Your task to perform on an android device: add a contact Image 0: 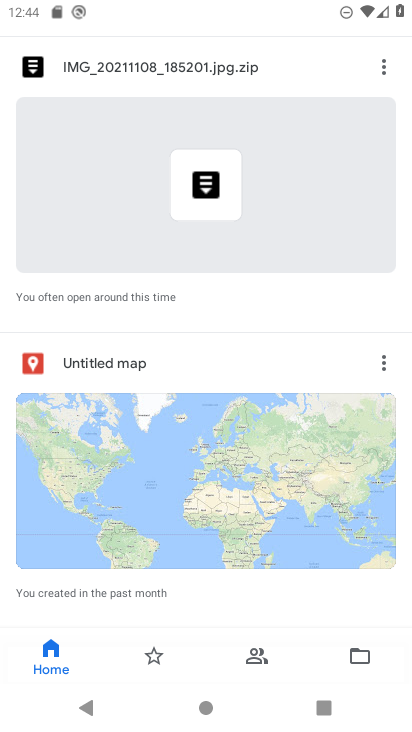
Step 0: press home button
Your task to perform on an android device: add a contact Image 1: 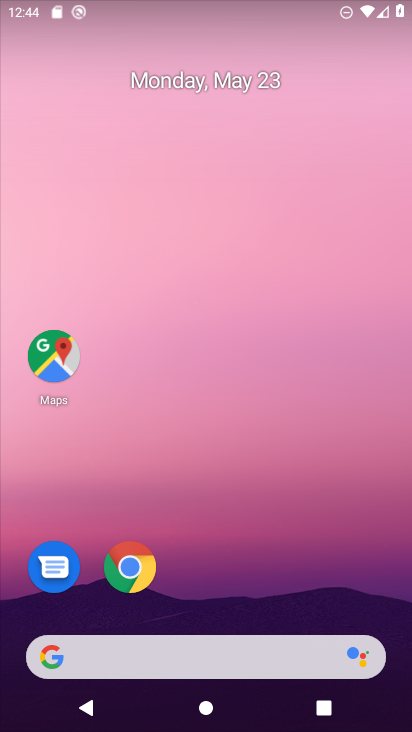
Step 1: drag from (184, 620) to (211, 166)
Your task to perform on an android device: add a contact Image 2: 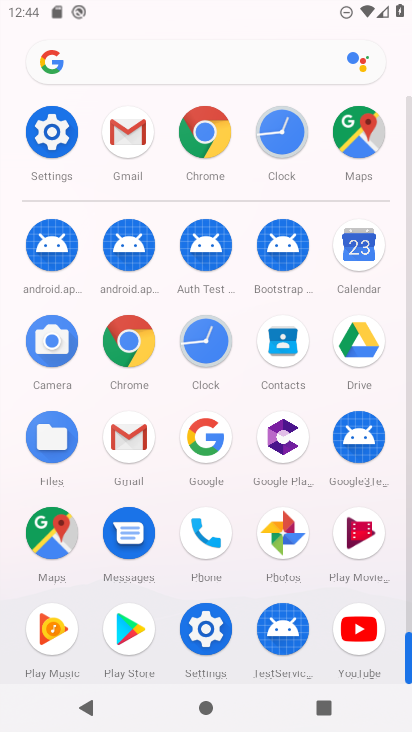
Step 2: click (273, 348)
Your task to perform on an android device: add a contact Image 3: 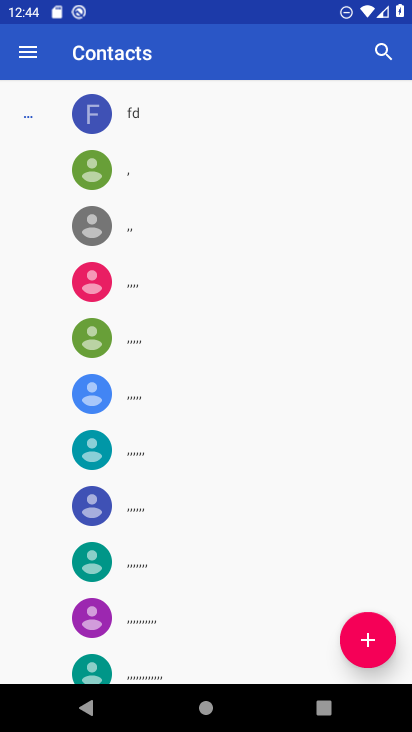
Step 3: click (375, 647)
Your task to perform on an android device: add a contact Image 4: 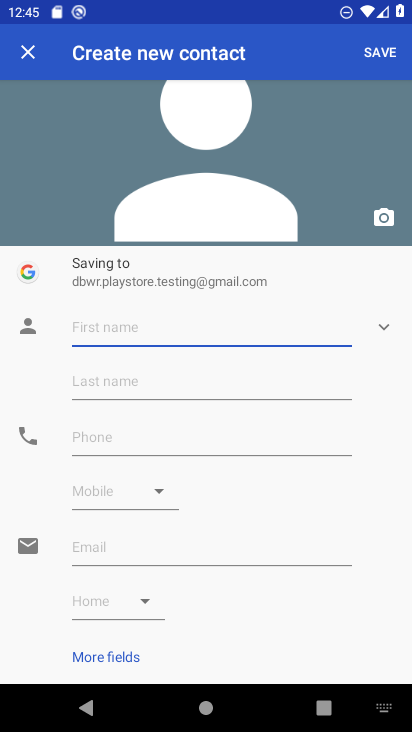
Step 4: type "mm"
Your task to perform on an android device: add a contact Image 5: 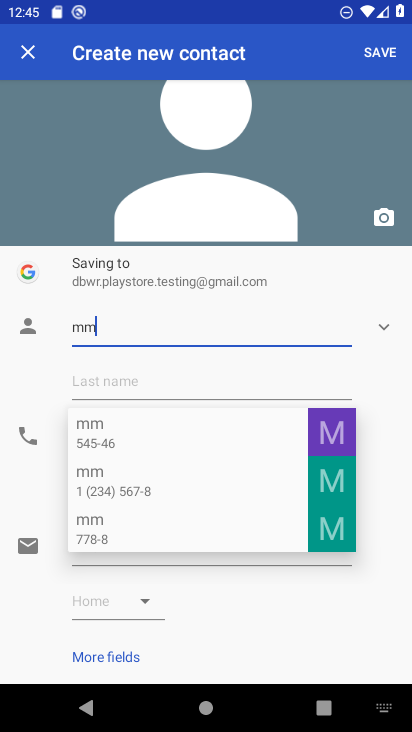
Step 5: click (162, 451)
Your task to perform on an android device: add a contact Image 6: 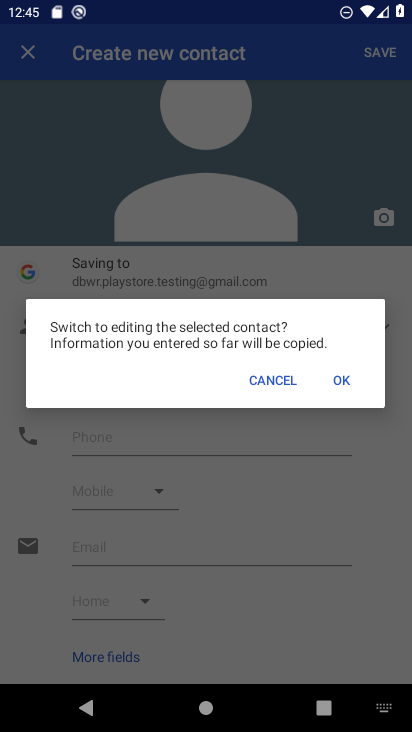
Step 6: click (293, 386)
Your task to perform on an android device: add a contact Image 7: 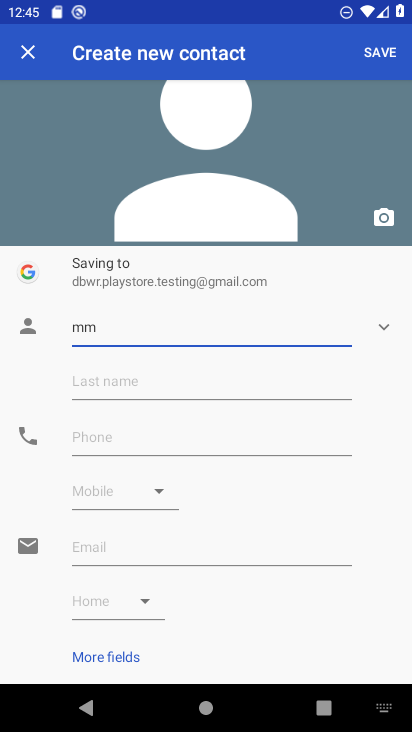
Step 7: type "kk"
Your task to perform on an android device: add a contact Image 8: 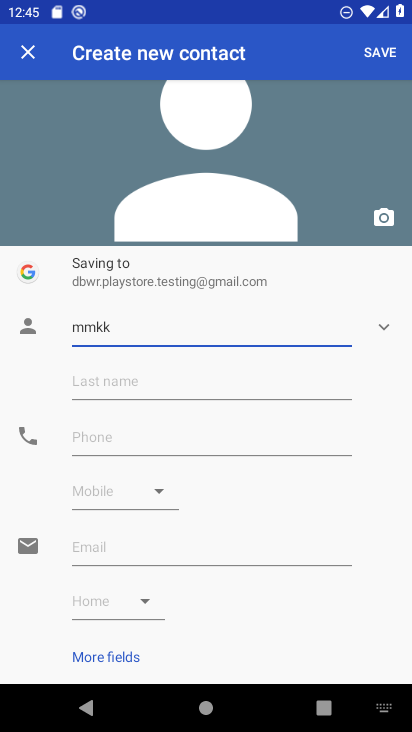
Step 8: click (185, 441)
Your task to perform on an android device: add a contact Image 9: 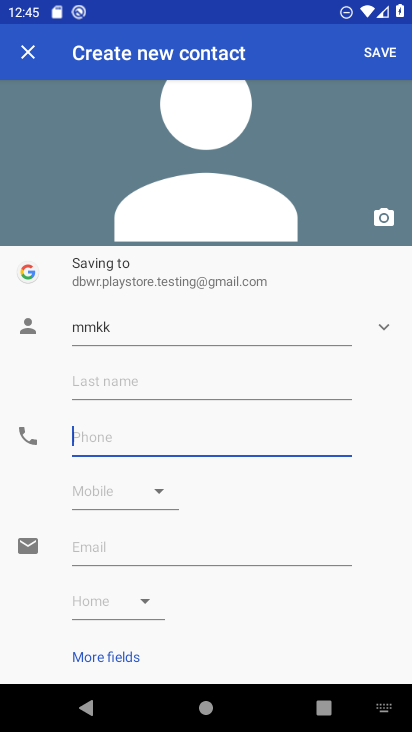
Step 9: type "99999999999999"
Your task to perform on an android device: add a contact Image 10: 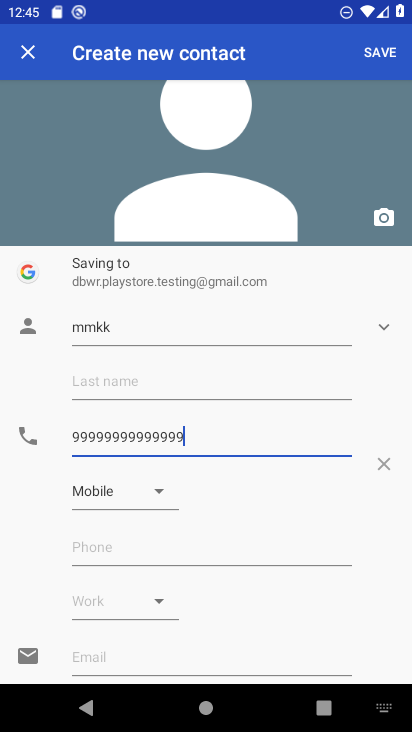
Step 10: click (379, 71)
Your task to perform on an android device: add a contact Image 11: 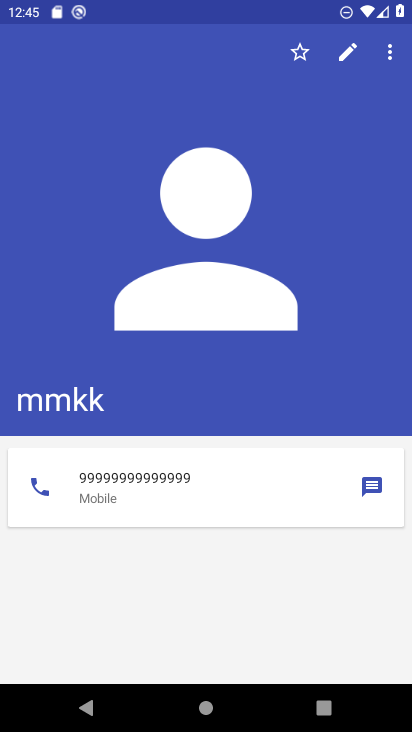
Step 11: task complete